Your task to perform on an android device: turn on location history Image 0: 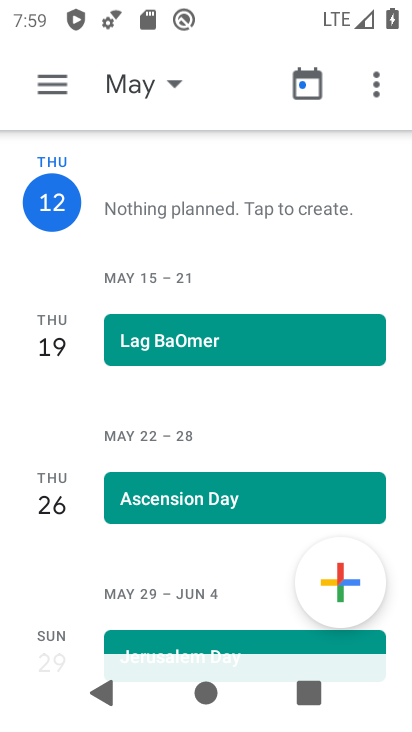
Step 0: press home button
Your task to perform on an android device: turn on location history Image 1: 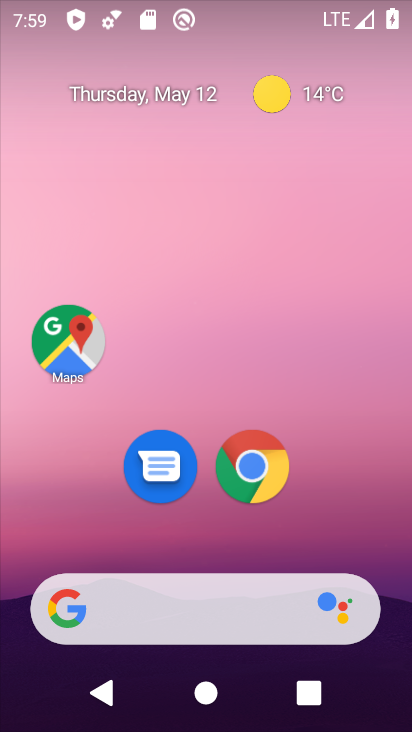
Step 1: drag from (212, 548) to (239, 2)
Your task to perform on an android device: turn on location history Image 2: 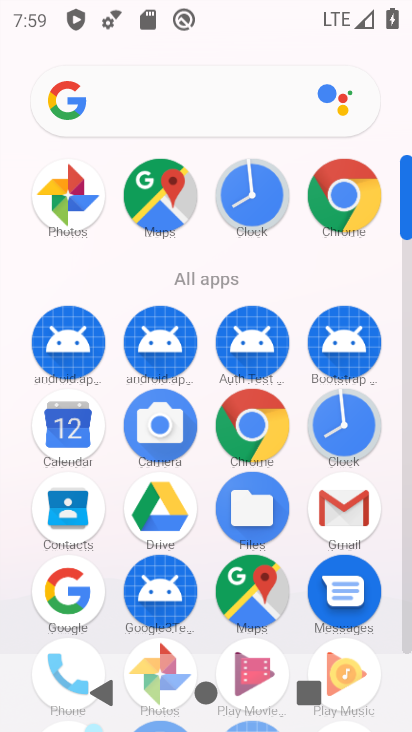
Step 2: drag from (202, 503) to (216, 67)
Your task to perform on an android device: turn on location history Image 3: 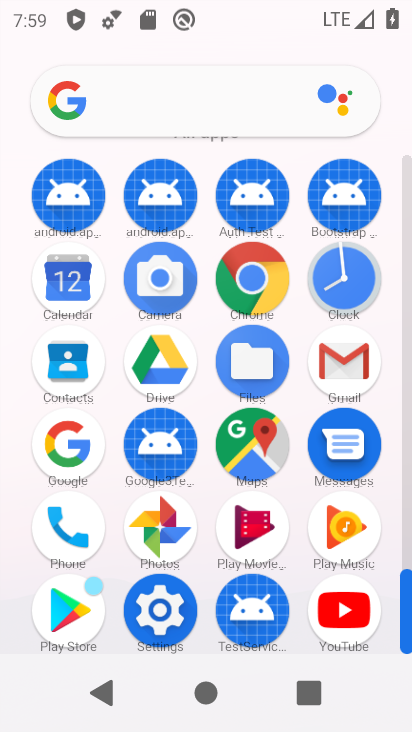
Step 3: click (160, 598)
Your task to perform on an android device: turn on location history Image 4: 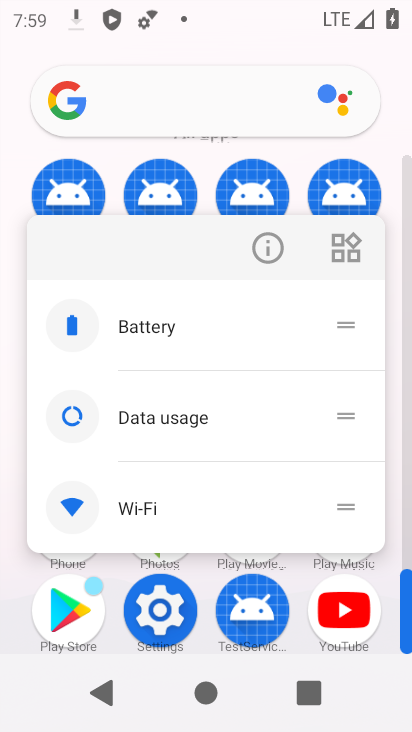
Step 4: click (152, 609)
Your task to perform on an android device: turn on location history Image 5: 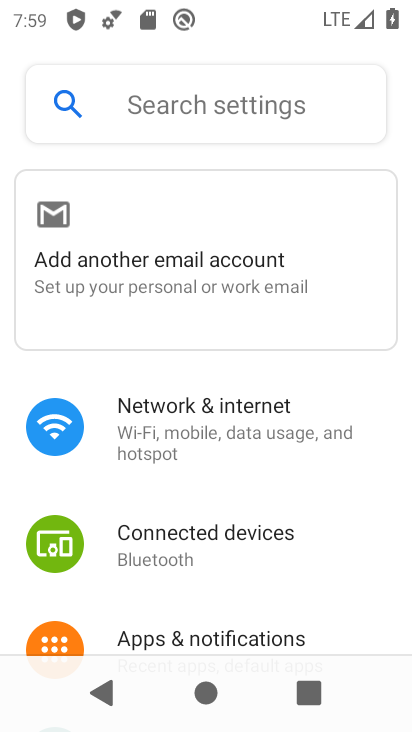
Step 5: drag from (191, 576) to (211, 0)
Your task to perform on an android device: turn on location history Image 6: 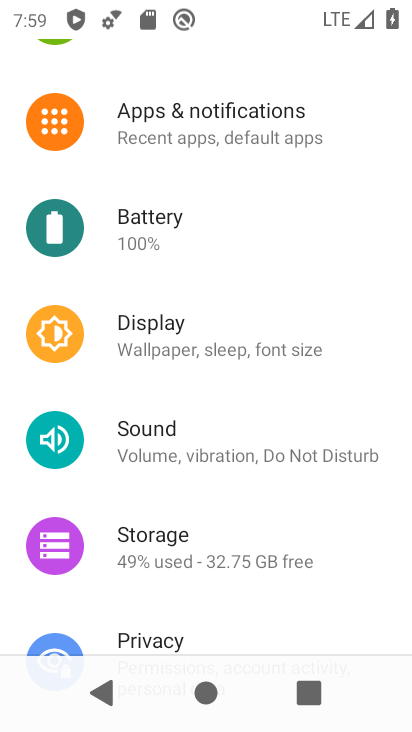
Step 6: drag from (213, 631) to (256, 30)
Your task to perform on an android device: turn on location history Image 7: 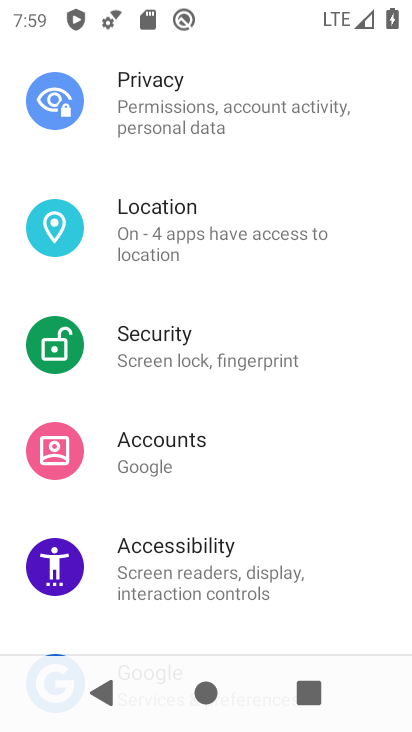
Step 7: click (198, 227)
Your task to perform on an android device: turn on location history Image 8: 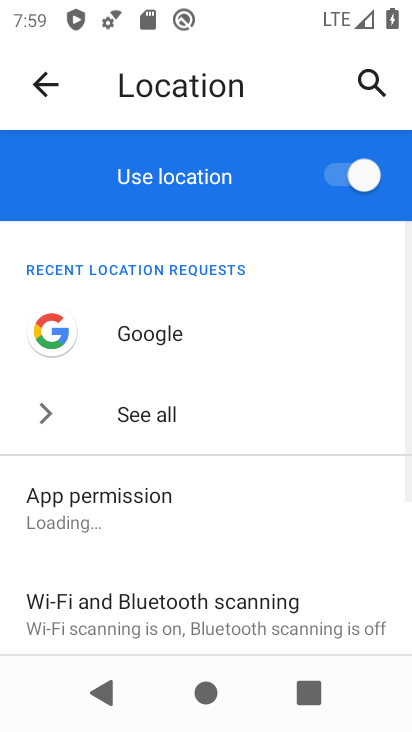
Step 8: drag from (209, 536) to (251, 56)
Your task to perform on an android device: turn on location history Image 9: 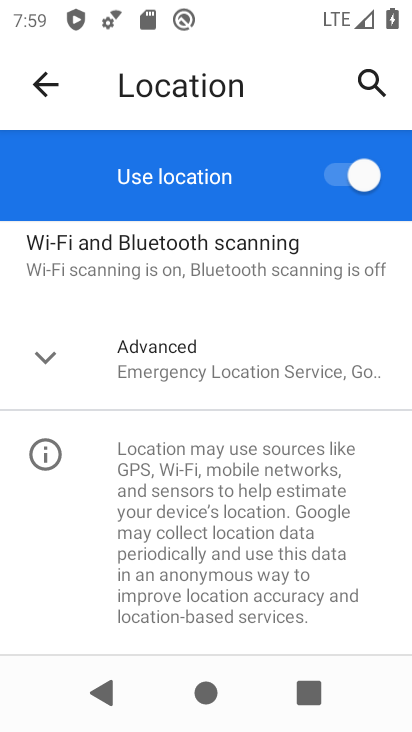
Step 9: click (47, 354)
Your task to perform on an android device: turn on location history Image 10: 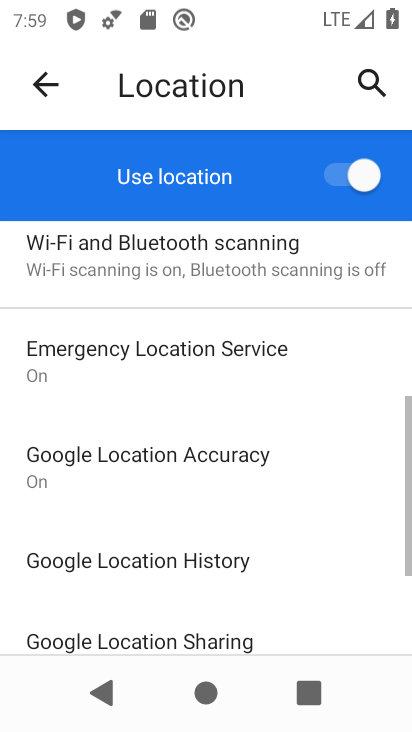
Step 10: drag from (198, 533) to (248, 211)
Your task to perform on an android device: turn on location history Image 11: 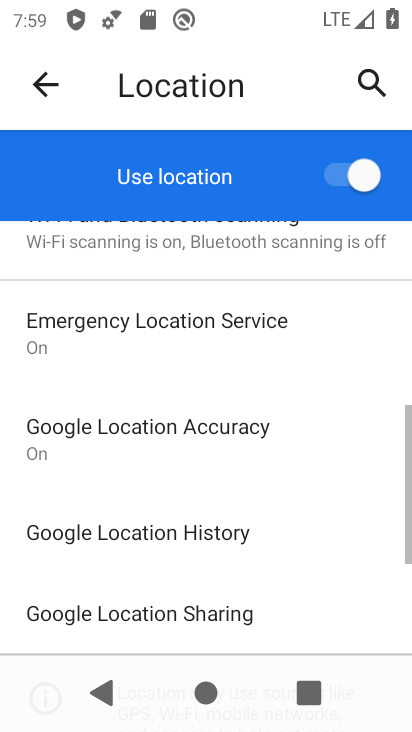
Step 11: click (126, 528)
Your task to perform on an android device: turn on location history Image 12: 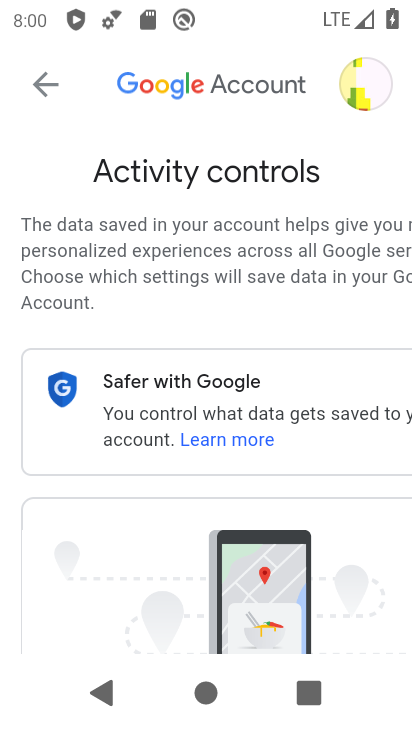
Step 12: task complete